Your task to perform on an android device: toggle data saver in the chrome app Image 0: 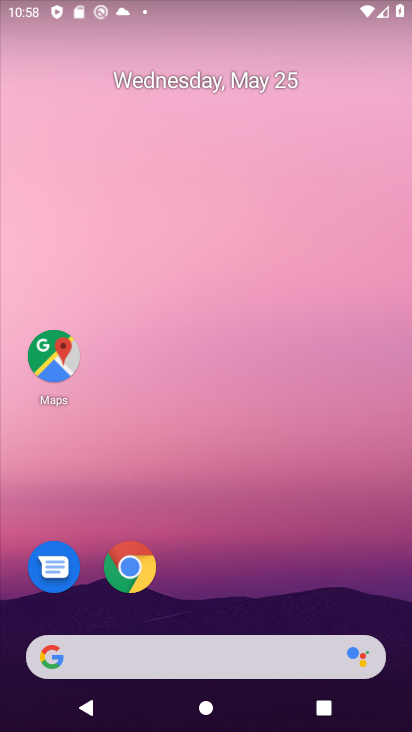
Step 0: drag from (220, 606) to (225, 161)
Your task to perform on an android device: toggle data saver in the chrome app Image 1: 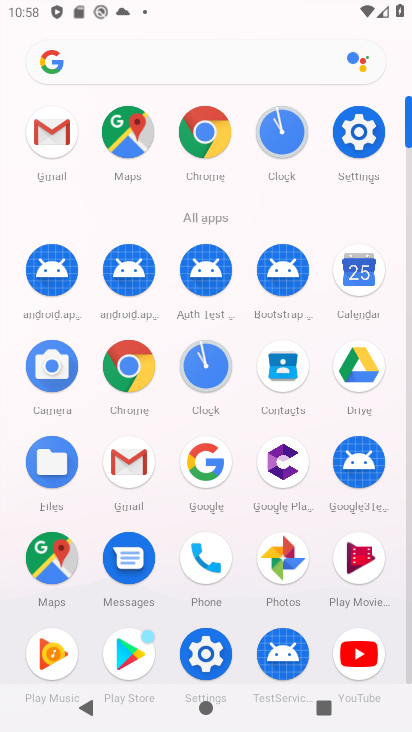
Step 1: click (132, 382)
Your task to perform on an android device: toggle data saver in the chrome app Image 2: 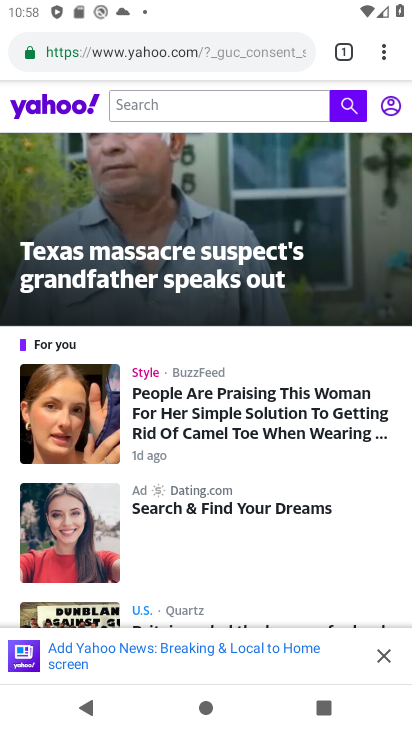
Step 2: click (380, 62)
Your task to perform on an android device: toggle data saver in the chrome app Image 3: 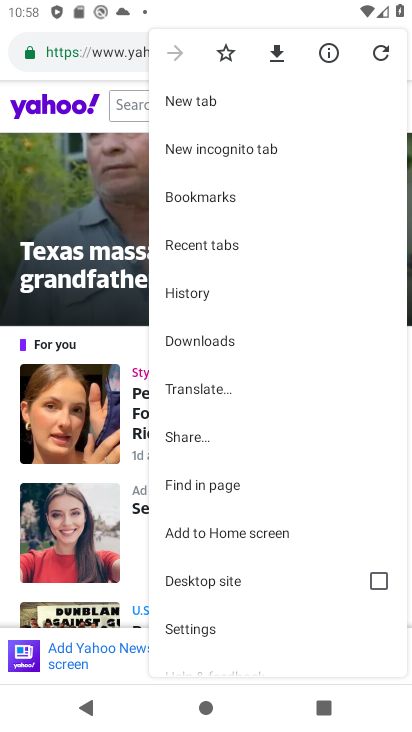
Step 3: click (187, 619)
Your task to perform on an android device: toggle data saver in the chrome app Image 4: 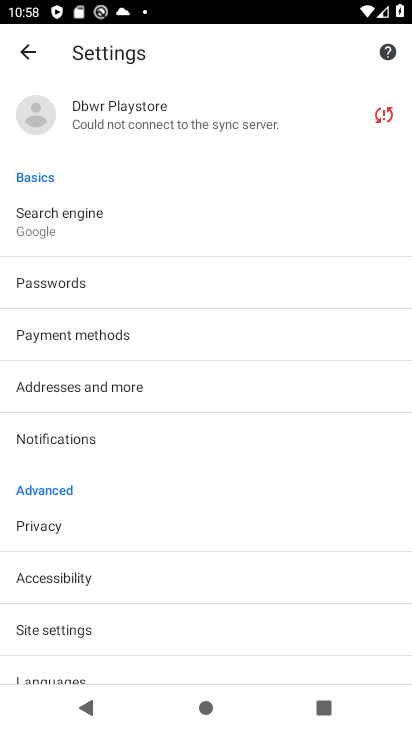
Step 4: drag from (61, 647) to (121, 392)
Your task to perform on an android device: toggle data saver in the chrome app Image 5: 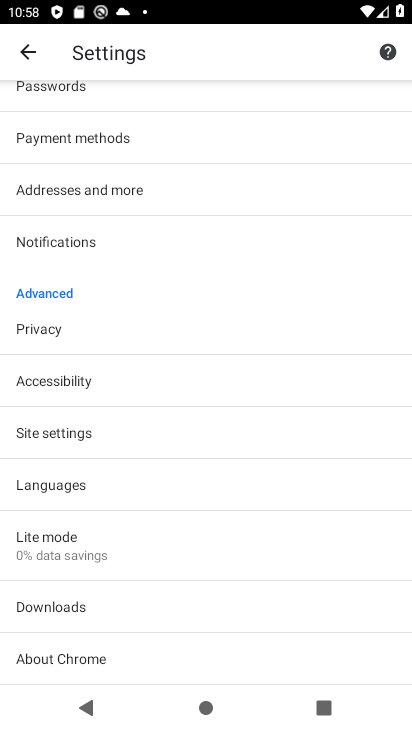
Step 5: click (91, 547)
Your task to perform on an android device: toggle data saver in the chrome app Image 6: 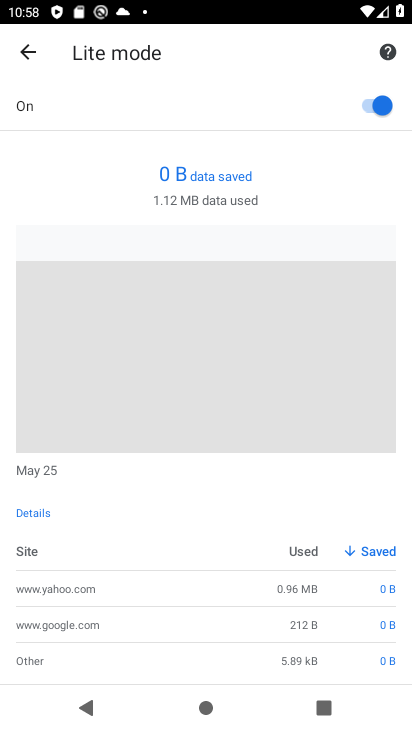
Step 6: click (352, 110)
Your task to perform on an android device: toggle data saver in the chrome app Image 7: 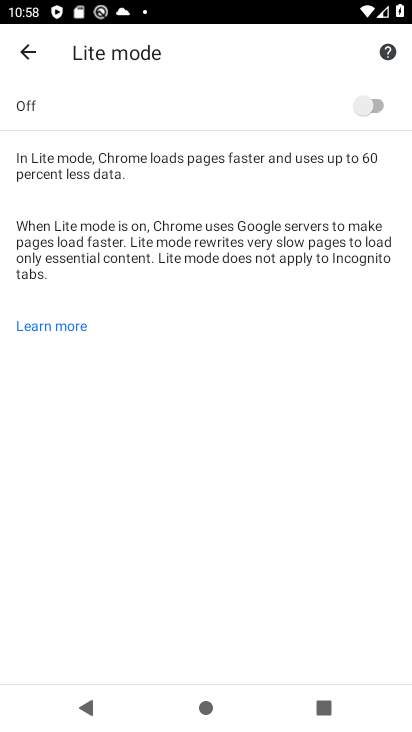
Step 7: task complete